Your task to perform on an android device: What is the recent news? Image 0: 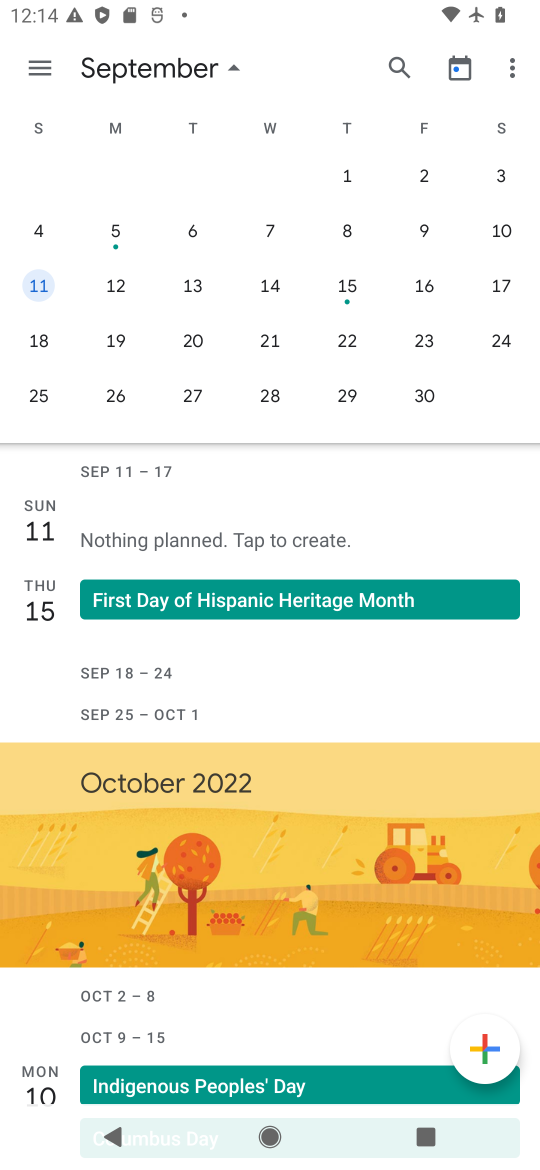
Step 0: press home button
Your task to perform on an android device: What is the recent news? Image 1: 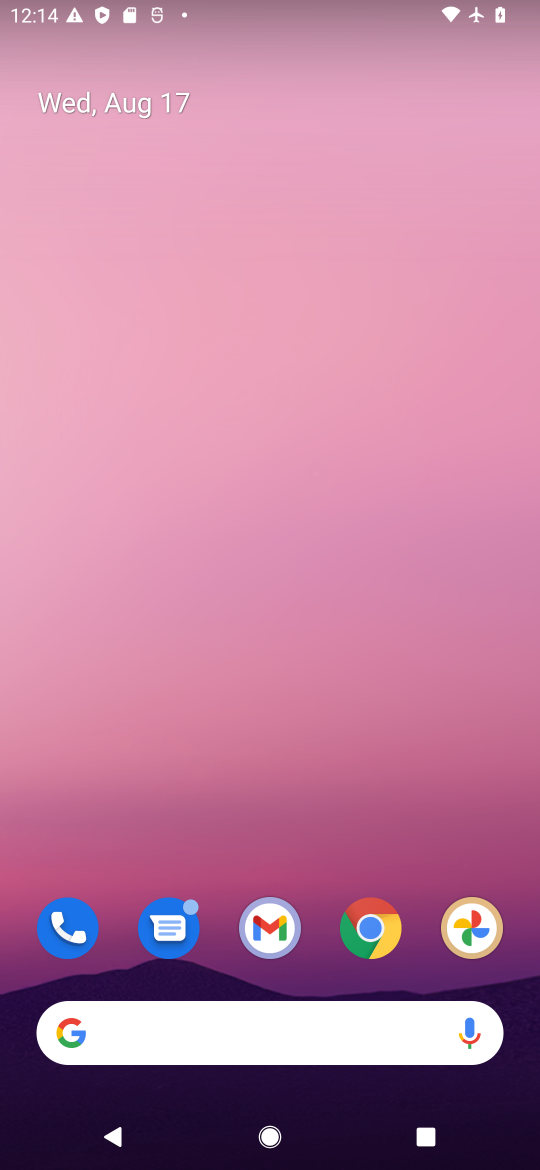
Step 1: drag from (272, 841) to (287, 256)
Your task to perform on an android device: What is the recent news? Image 2: 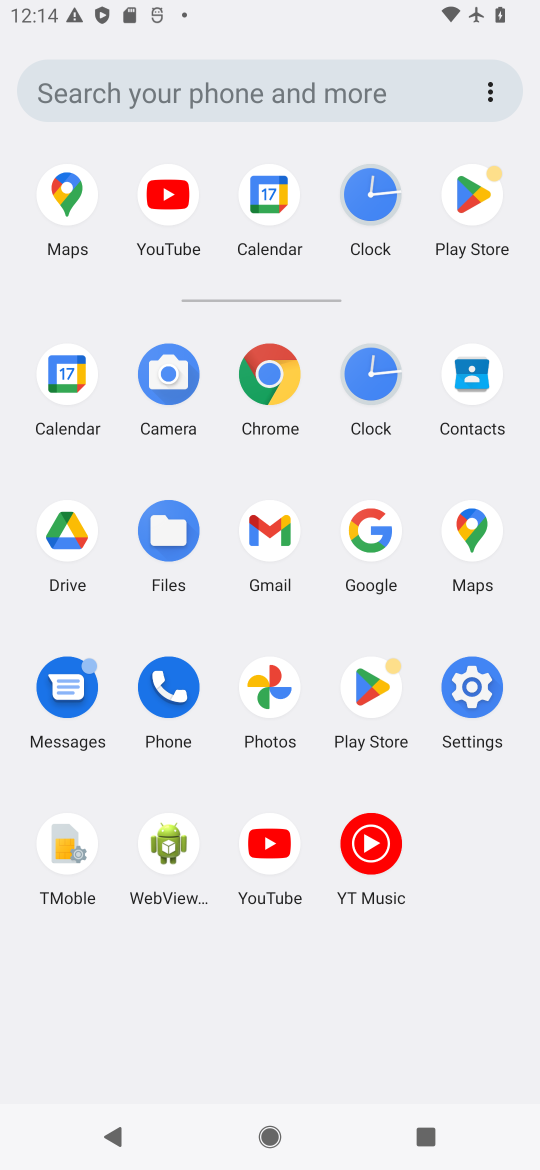
Step 2: click (342, 551)
Your task to perform on an android device: What is the recent news? Image 3: 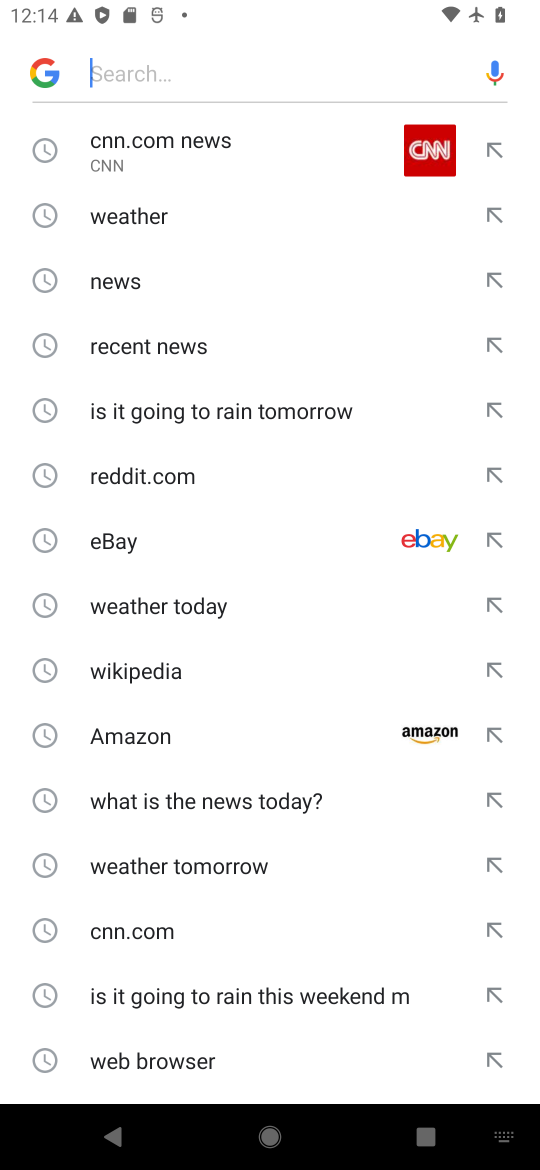
Step 3: click (153, 276)
Your task to perform on an android device: What is the recent news? Image 4: 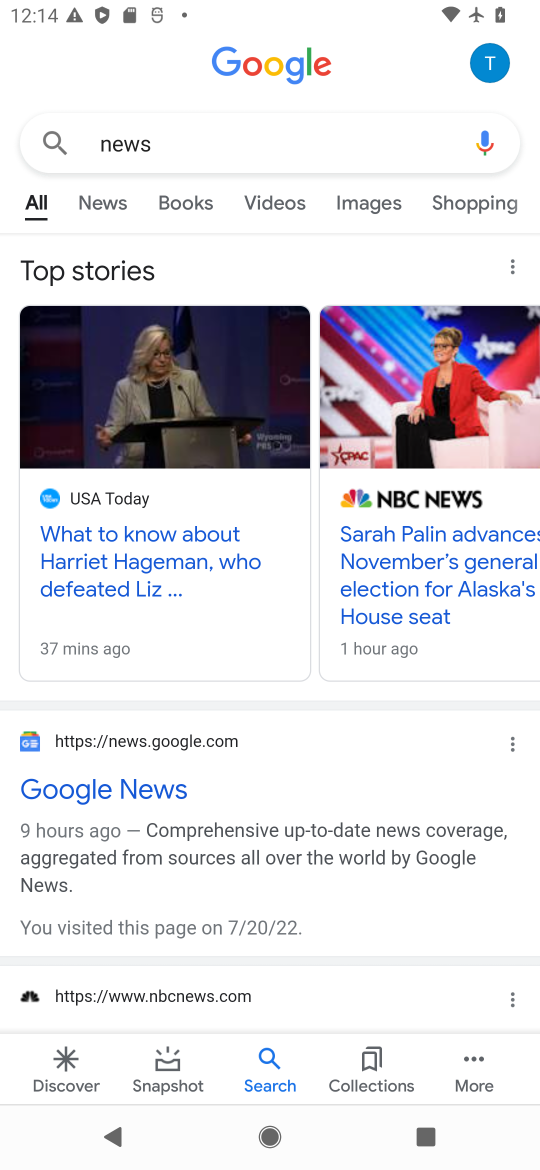
Step 4: click (106, 201)
Your task to perform on an android device: What is the recent news? Image 5: 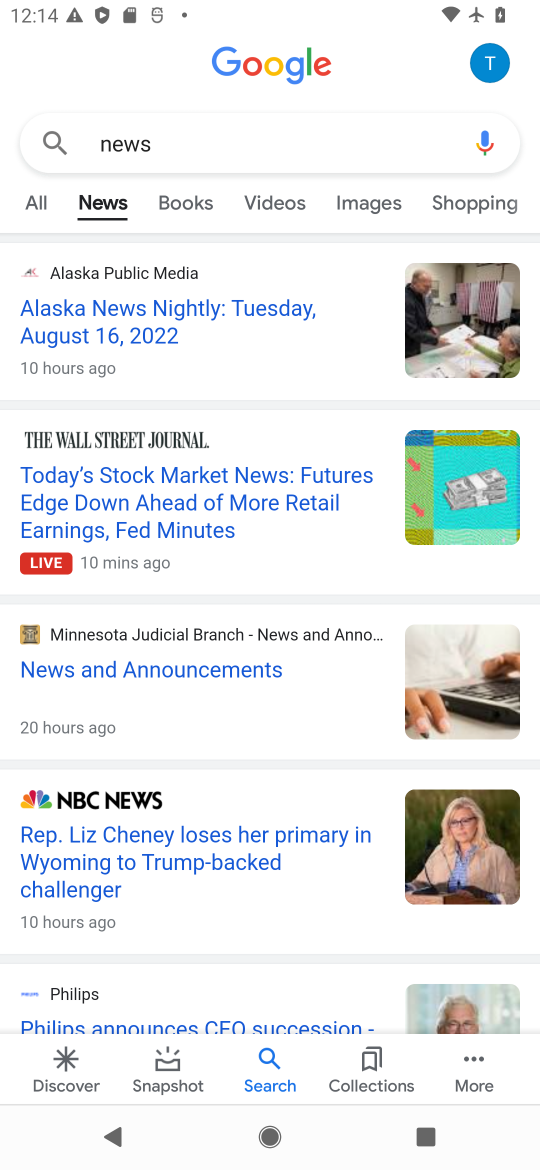
Step 5: task complete